Your task to perform on an android device: Is it going to rain this weekend? Image 0: 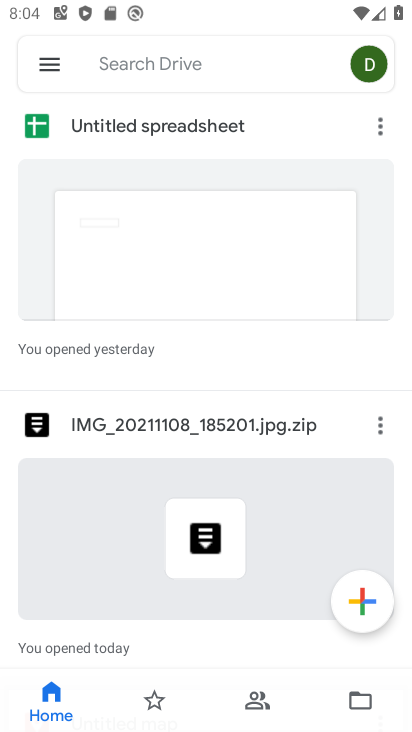
Step 0: drag from (196, 597) to (342, 66)
Your task to perform on an android device: Is it going to rain this weekend? Image 1: 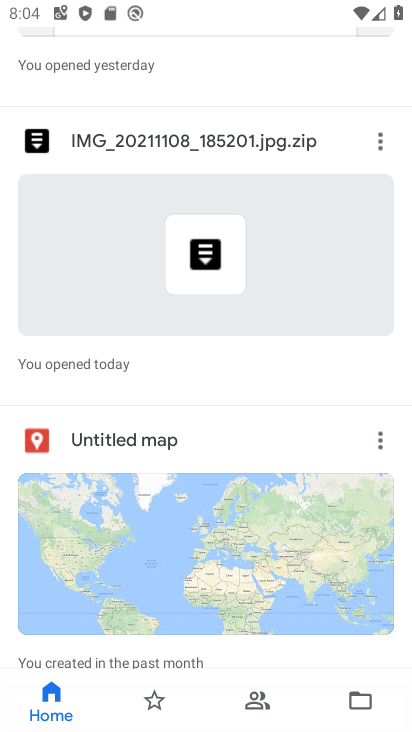
Step 1: press home button
Your task to perform on an android device: Is it going to rain this weekend? Image 2: 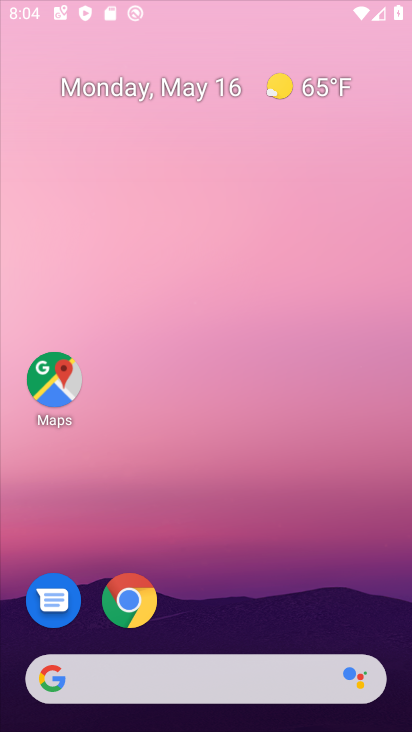
Step 2: drag from (211, 591) to (269, 101)
Your task to perform on an android device: Is it going to rain this weekend? Image 3: 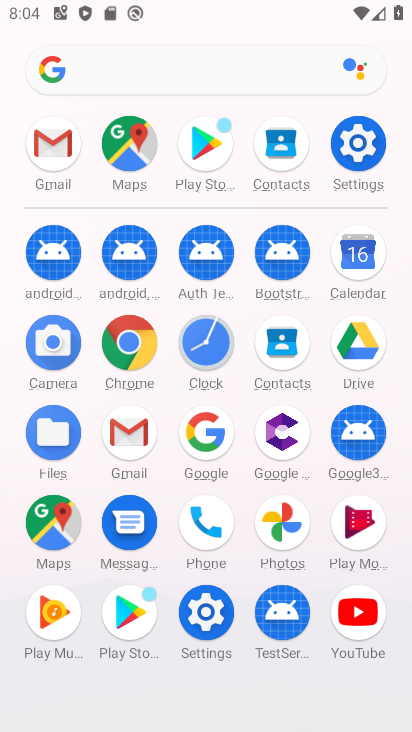
Step 3: click (164, 71)
Your task to perform on an android device: Is it going to rain this weekend? Image 4: 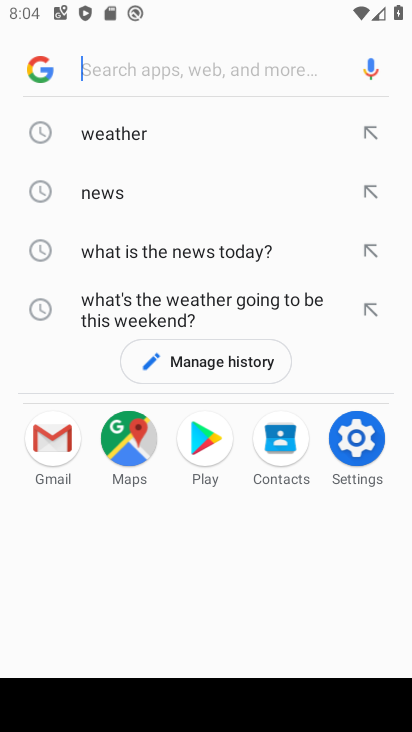
Step 4: type "rain this weekend"
Your task to perform on an android device: Is it going to rain this weekend? Image 5: 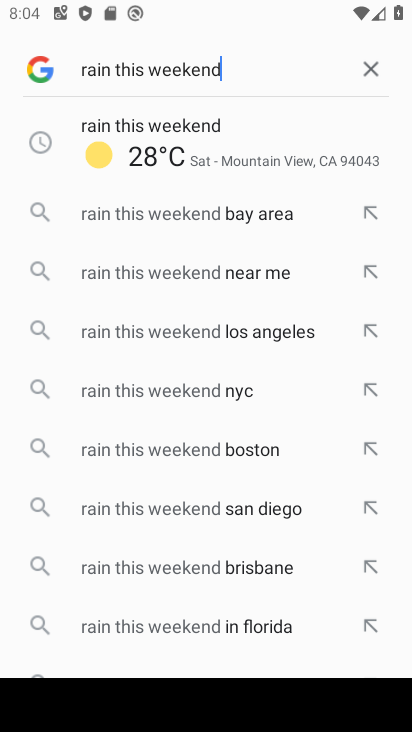
Step 5: click (200, 114)
Your task to perform on an android device: Is it going to rain this weekend? Image 6: 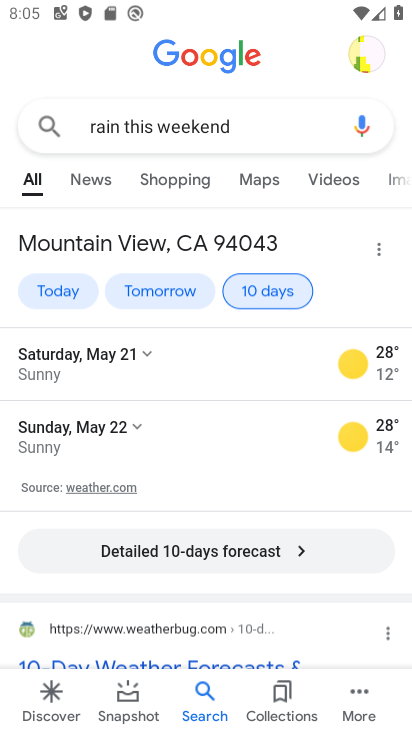
Step 6: task complete